Your task to perform on an android device: Search for a new lawnmower on Lowes. Image 0: 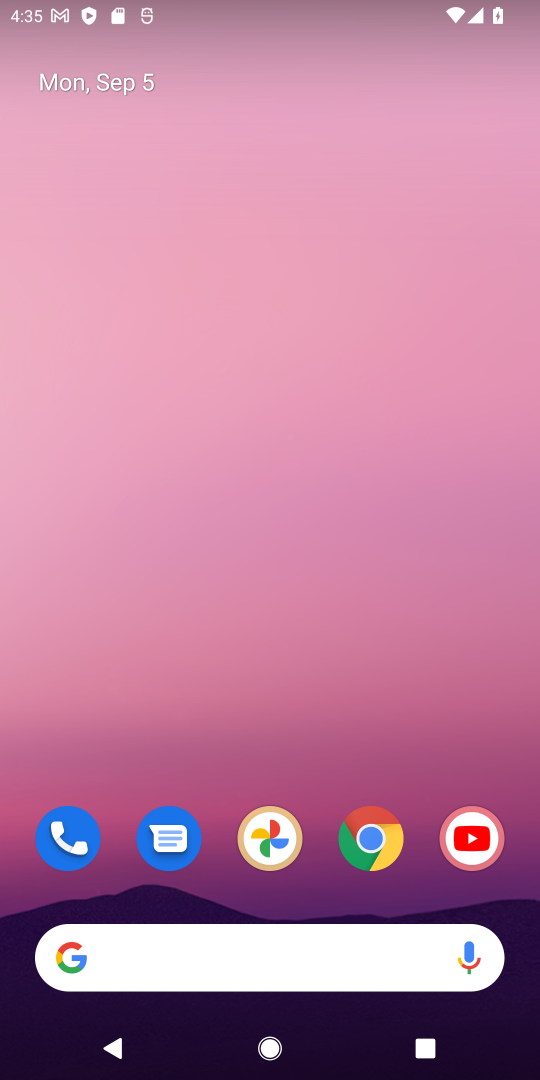
Step 0: drag from (331, 888) to (454, 191)
Your task to perform on an android device: Search for a new lawnmower on Lowes. Image 1: 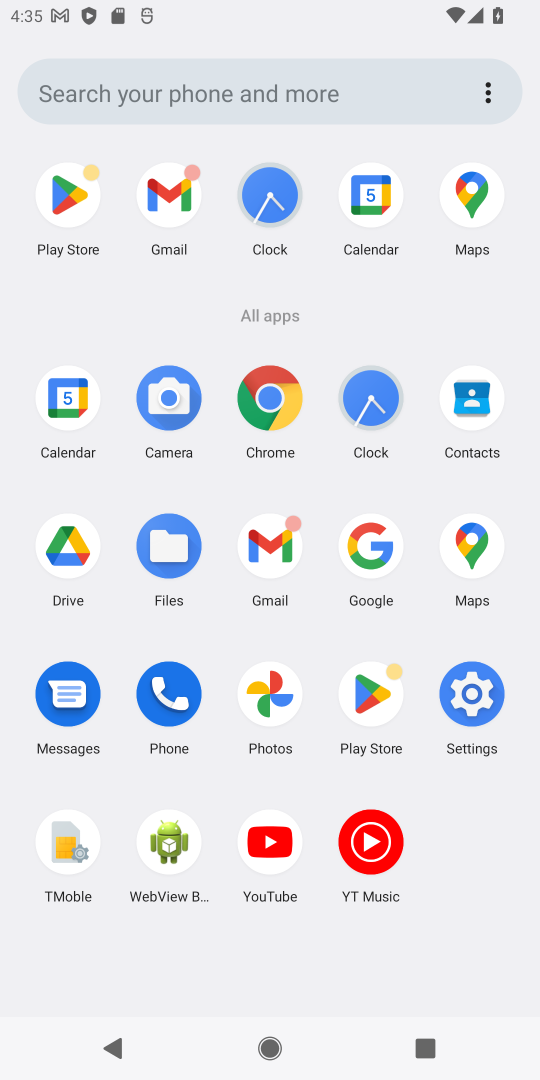
Step 1: click (259, 390)
Your task to perform on an android device: Search for a new lawnmower on Lowes. Image 2: 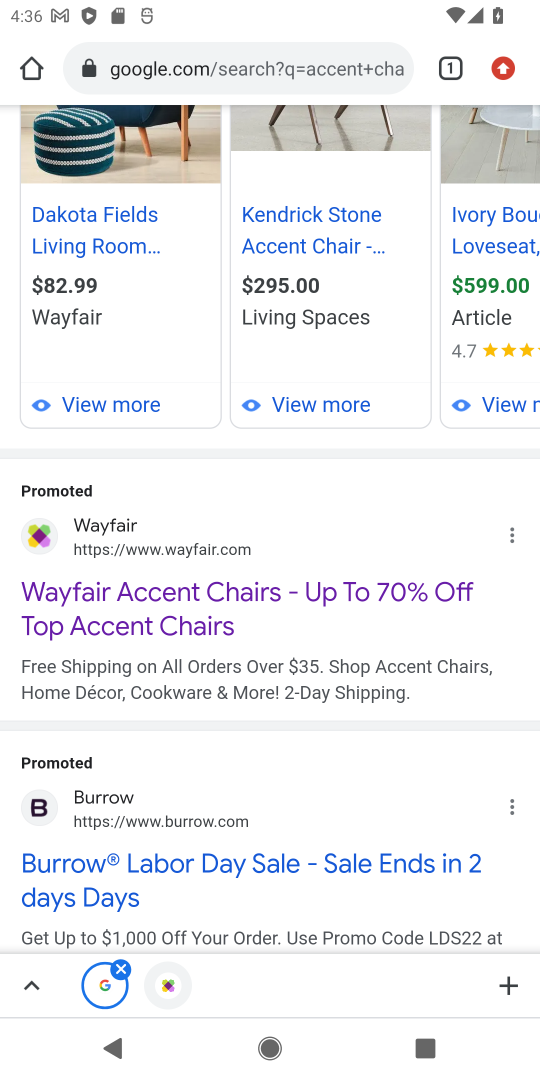
Step 2: click (200, 68)
Your task to perform on an android device: Search for a new lawnmower on Lowes. Image 3: 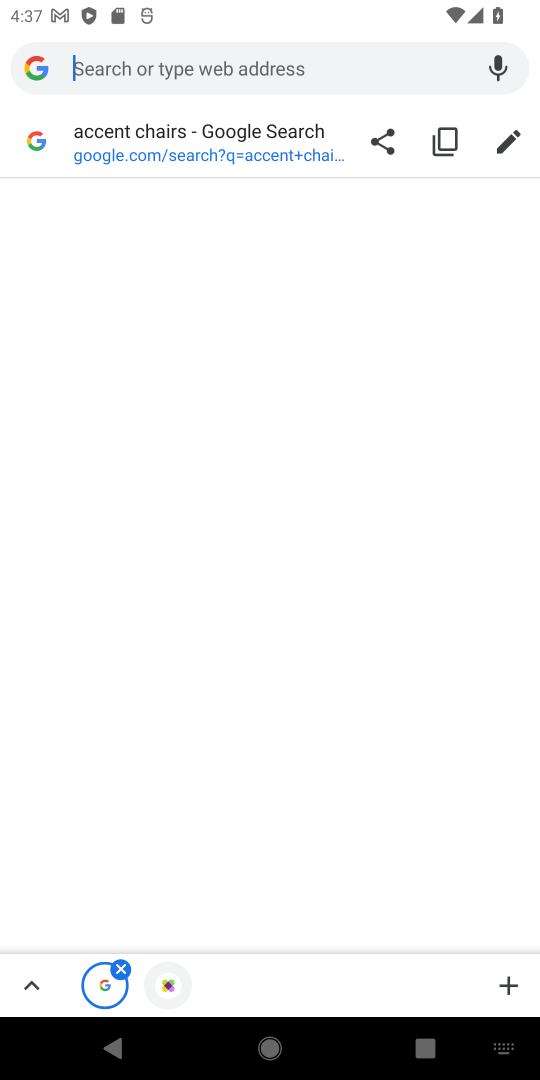
Step 3: type " Lowes."
Your task to perform on an android device: Search for a new lawnmower on Lowes. Image 4: 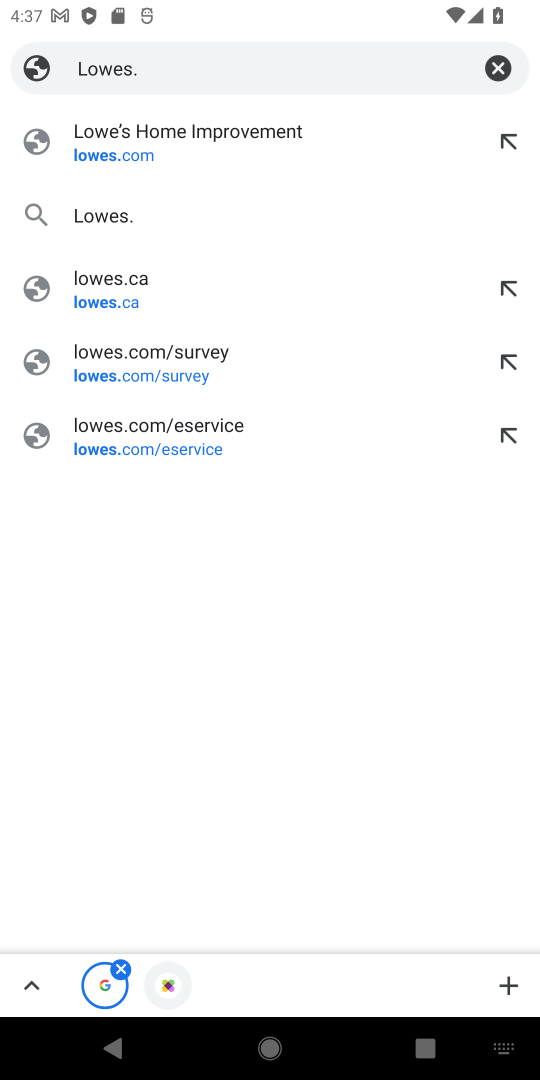
Step 4: click (118, 152)
Your task to perform on an android device: Search for a new lawnmower on Lowes. Image 5: 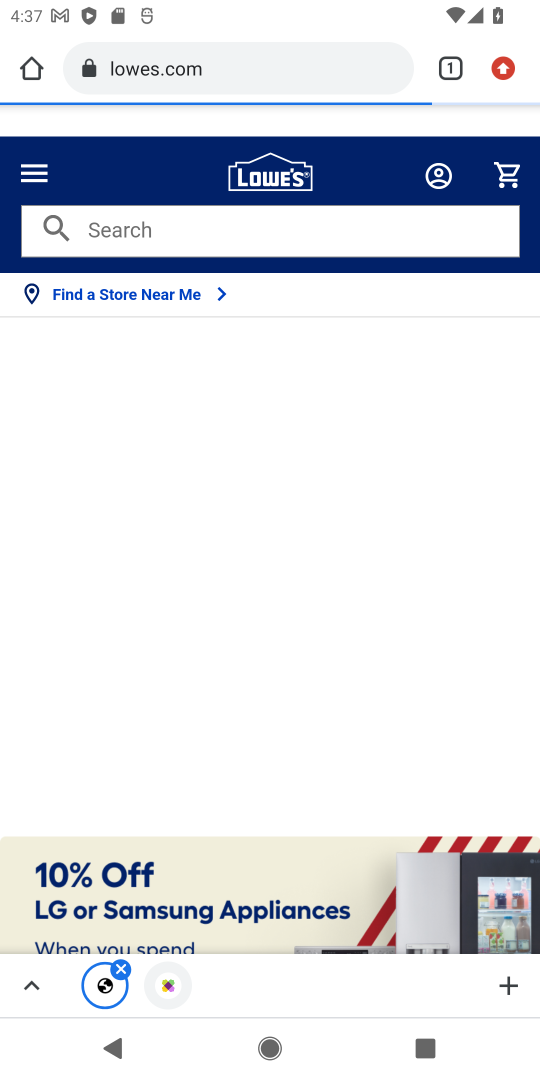
Step 5: drag from (205, 830) to (313, 471)
Your task to perform on an android device: Search for a new lawnmower on Lowes. Image 6: 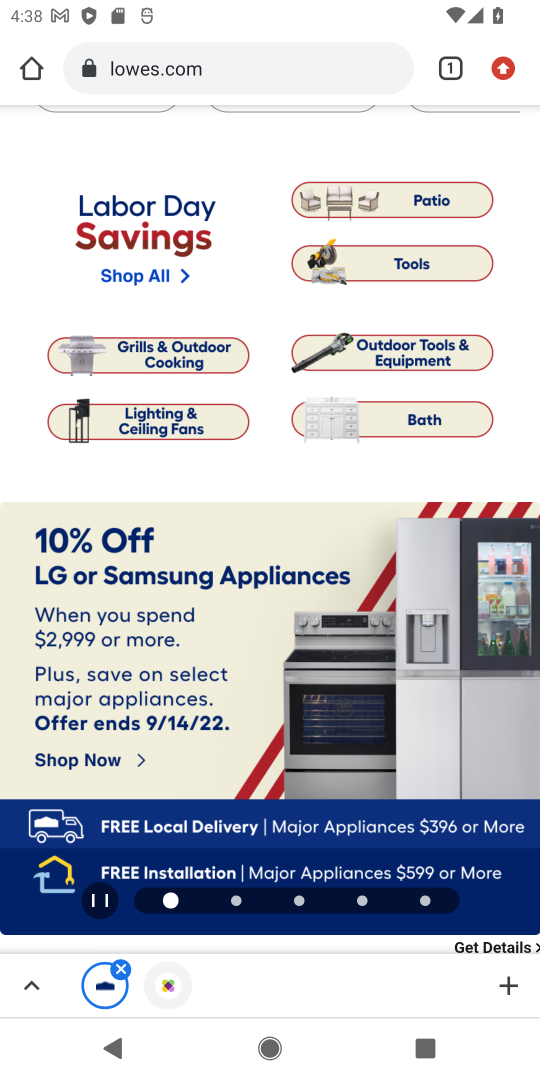
Step 6: drag from (309, 177) to (209, 846)
Your task to perform on an android device: Search for a new lawnmower on Lowes. Image 7: 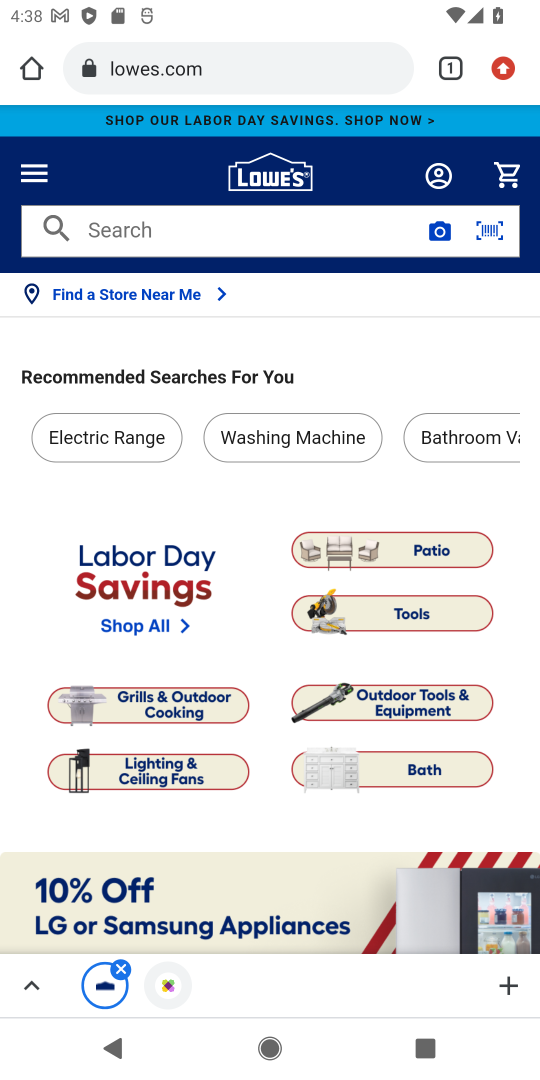
Step 7: click (174, 240)
Your task to perform on an android device: Search for a new lawnmower on Lowes. Image 8: 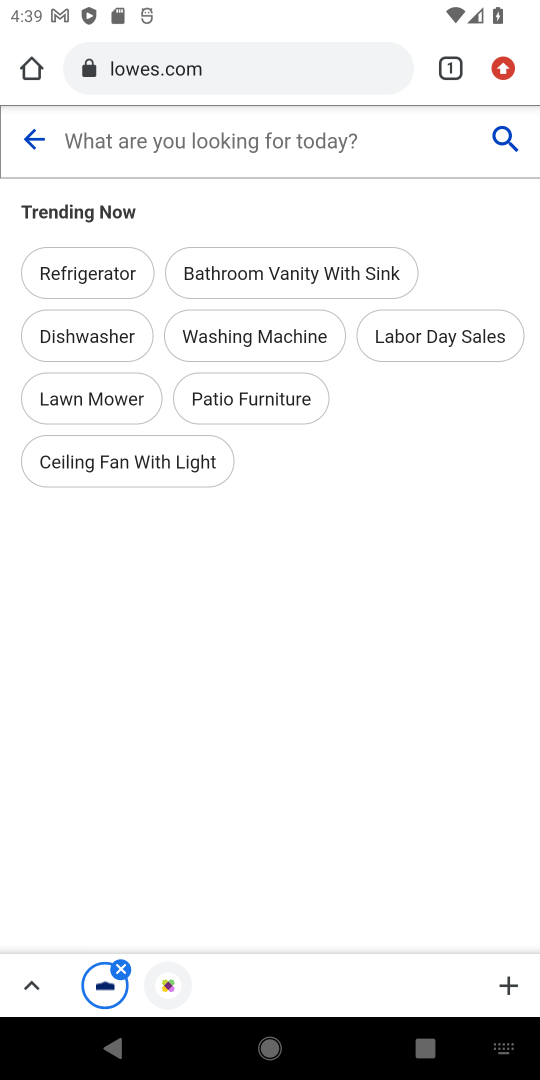
Step 8: click (81, 273)
Your task to perform on an android device: Search for a new lawnmower on Lowes. Image 9: 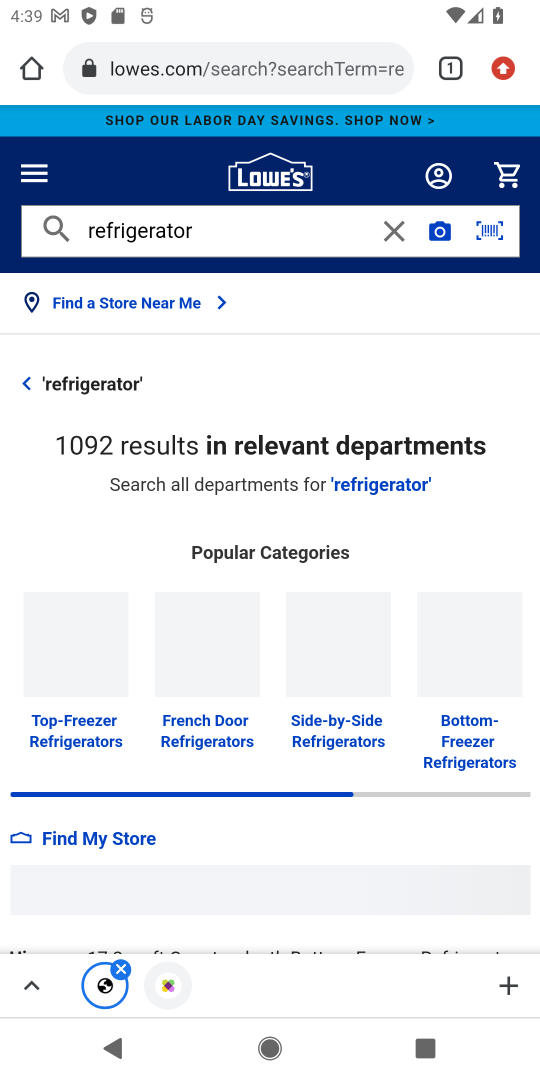
Step 9: task complete